Your task to perform on an android device: change timer sound Image 0: 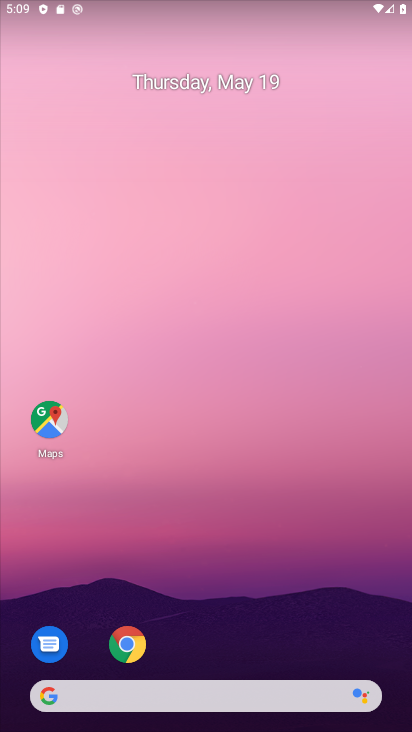
Step 0: drag from (252, 564) to (305, 160)
Your task to perform on an android device: change timer sound Image 1: 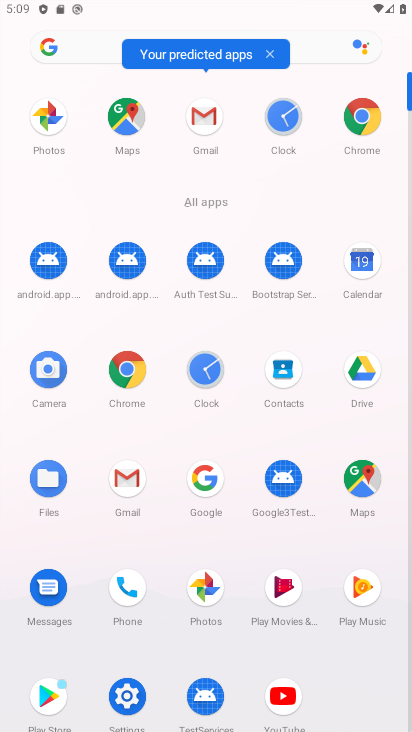
Step 1: click (202, 378)
Your task to perform on an android device: change timer sound Image 2: 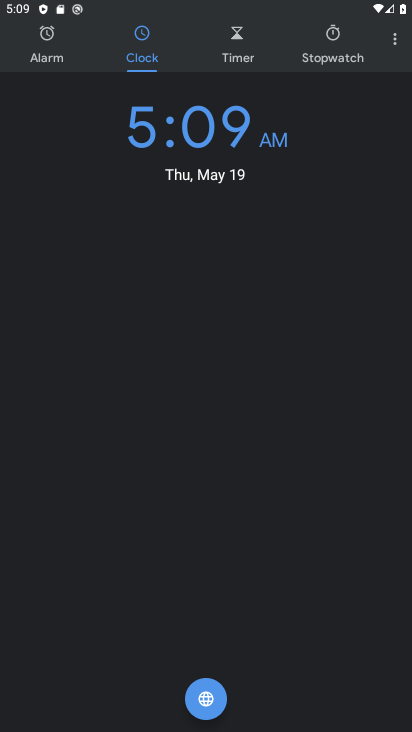
Step 2: click (252, 40)
Your task to perform on an android device: change timer sound Image 3: 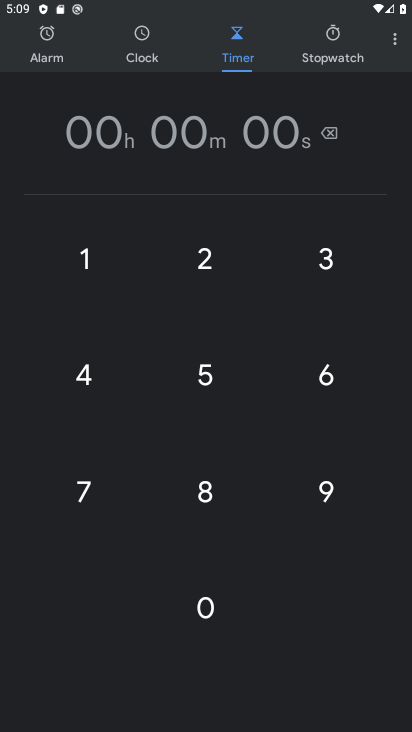
Step 3: click (401, 34)
Your task to perform on an android device: change timer sound Image 4: 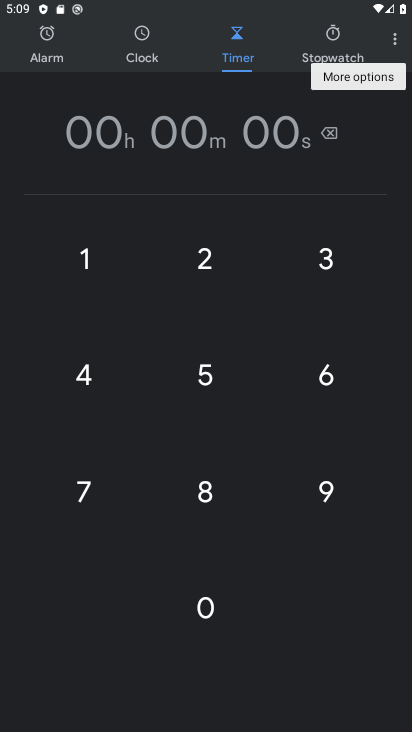
Step 4: click (395, 37)
Your task to perform on an android device: change timer sound Image 5: 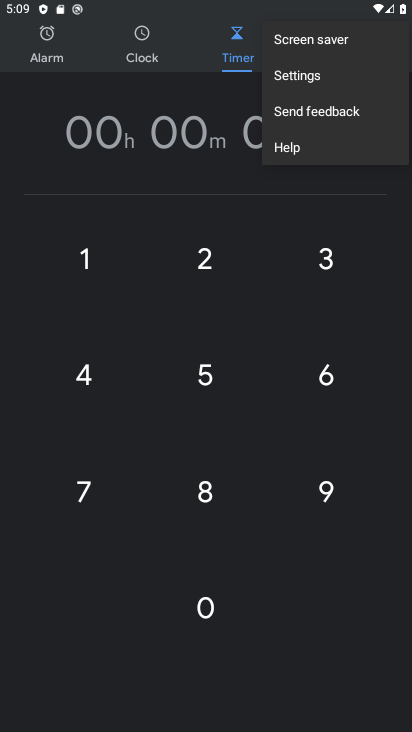
Step 5: click (304, 77)
Your task to perform on an android device: change timer sound Image 6: 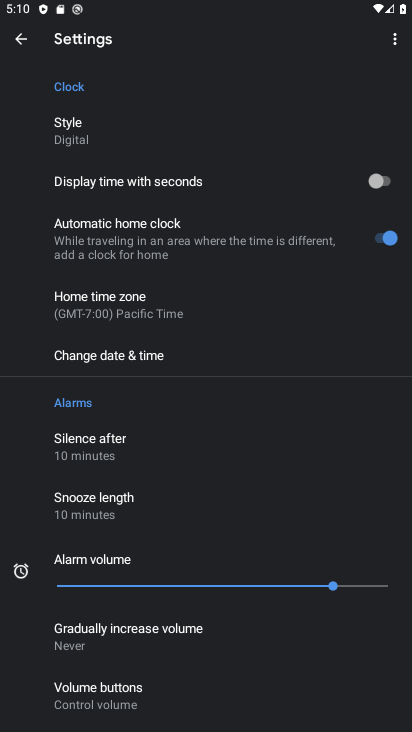
Step 6: drag from (134, 687) to (234, 243)
Your task to perform on an android device: change timer sound Image 7: 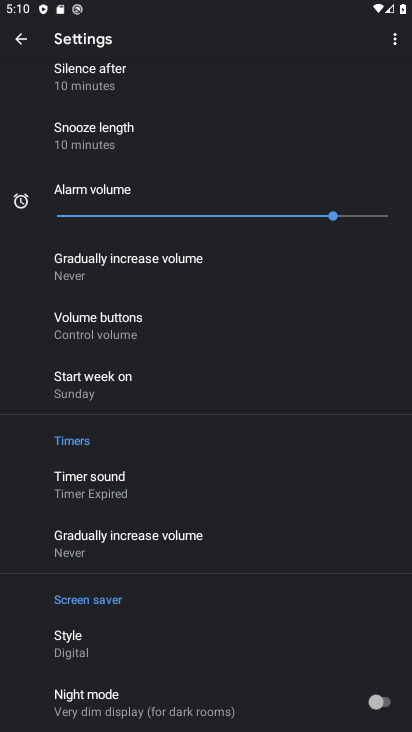
Step 7: click (99, 488)
Your task to perform on an android device: change timer sound Image 8: 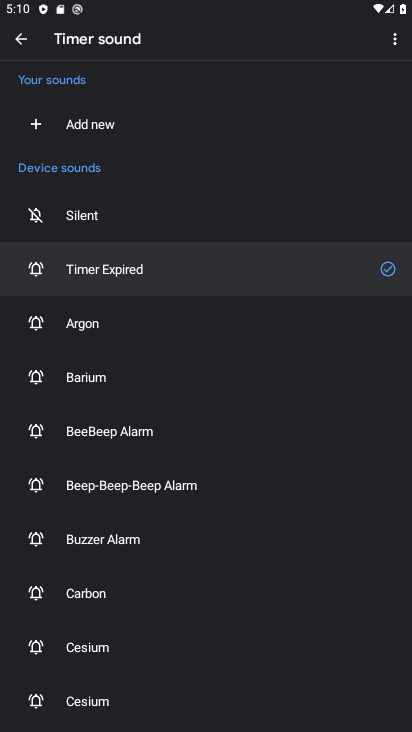
Step 8: click (89, 324)
Your task to perform on an android device: change timer sound Image 9: 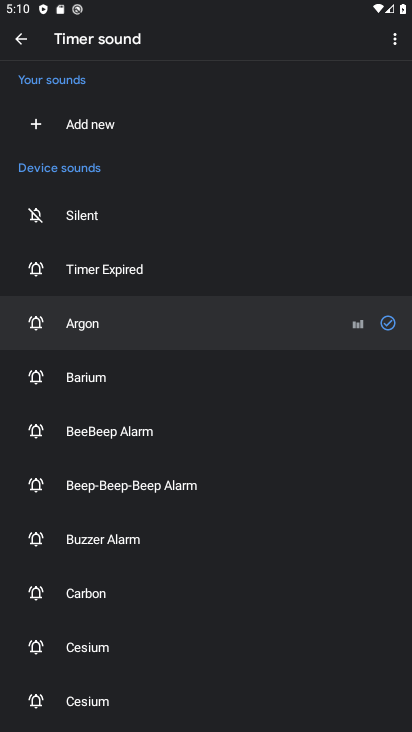
Step 9: task complete